Your task to perform on an android device: set the timer Image 0: 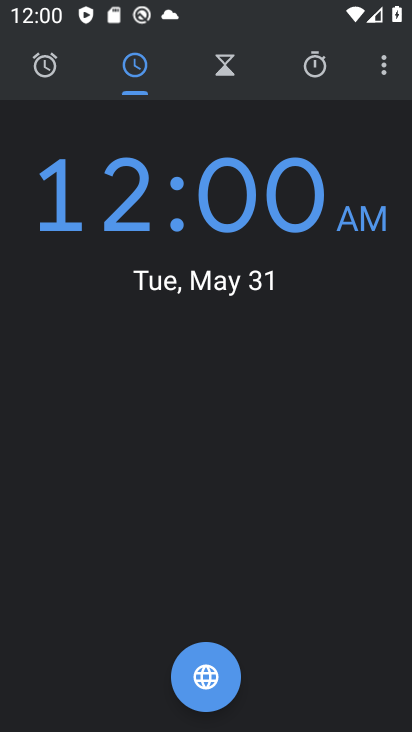
Step 0: press home button
Your task to perform on an android device: set the timer Image 1: 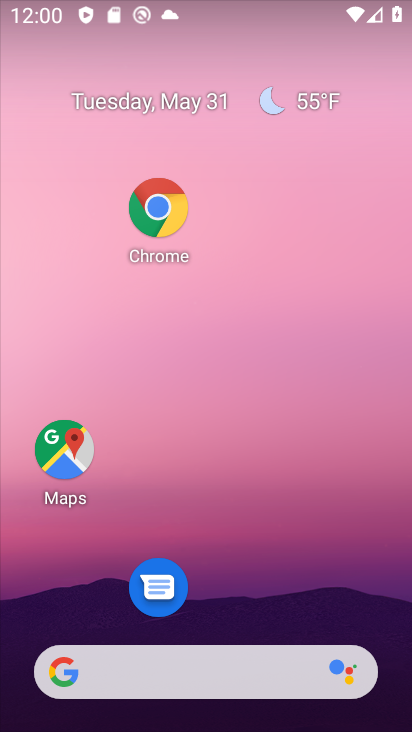
Step 1: drag from (256, 561) to (253, 151)
Your task to perform on an android device: set the timer Image 2: 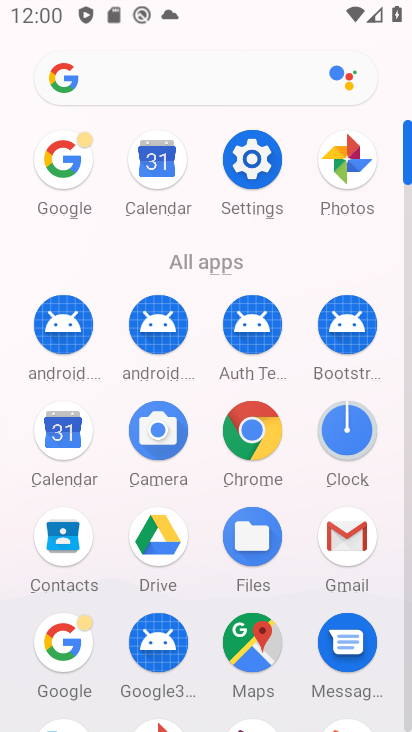
Step 2: click (345, 440)
Your task to perform on an android device: set the timer Image 3: 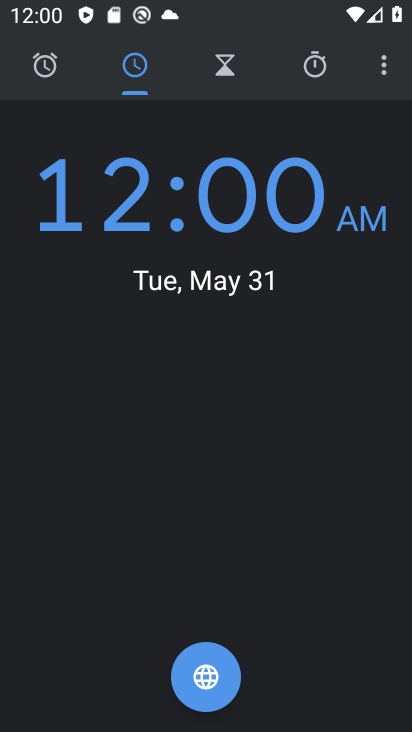
Step 3: click (236, 84)
Your task to perform on an android device: set the timer Image 4: 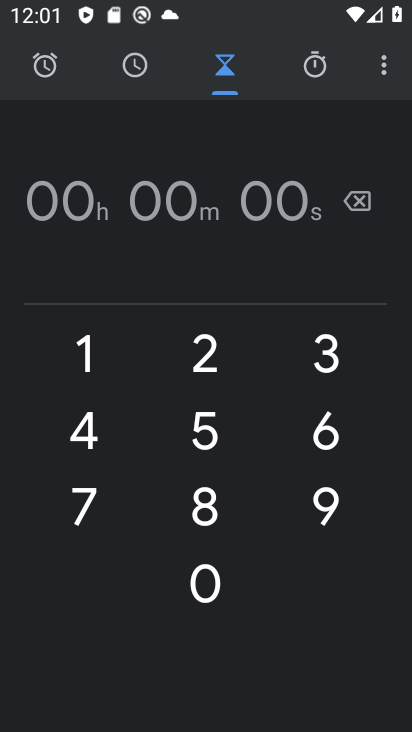
Step 4: click (326, 359)
Your task to perform on an android device: set the timer Image 5: 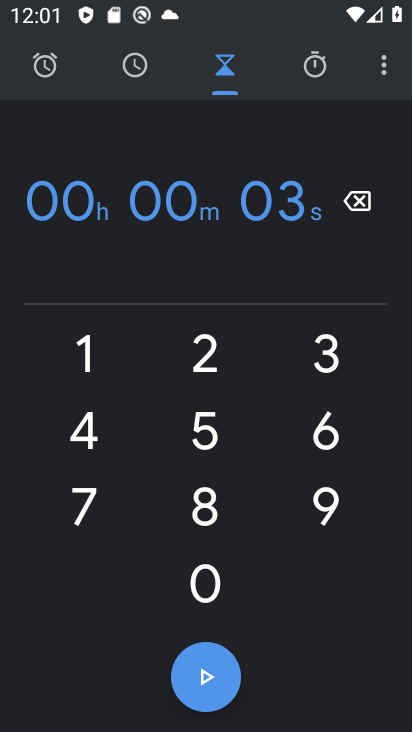
Step 5: click (210, 580)
Your task to perform on an android device: set the timer Image 6: 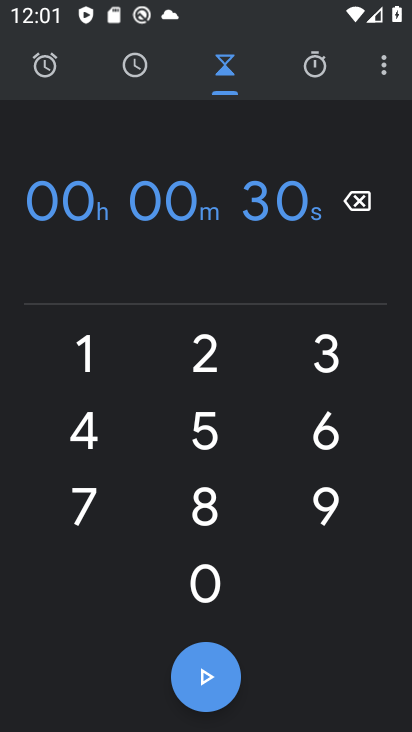
Step 6: click (210, 580)
Your task to perform on an android device: set the timer Image 7: 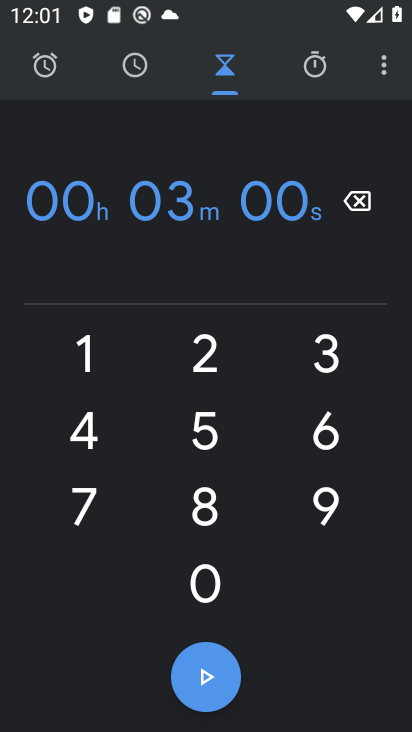
Step 7: click (210, 580)
Your task to perform on an android device: set the timer Image 8: 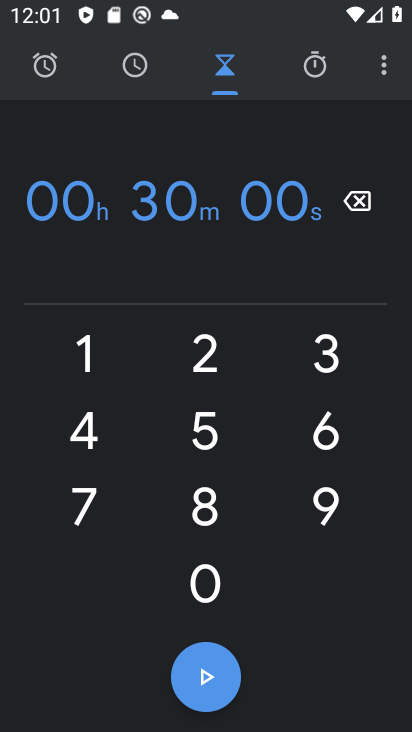
Step 8: click (210, 580)
Your task to perform on an android device: set the timer Image 9: 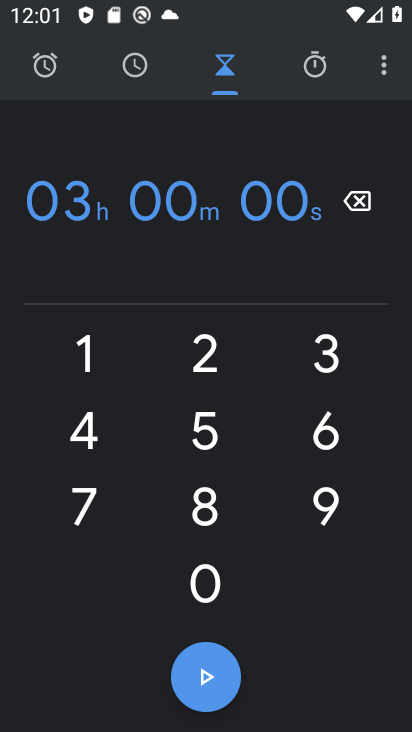
Step 9: click (217, 688)
Your task to perform on an android device: set the timer Image 10: 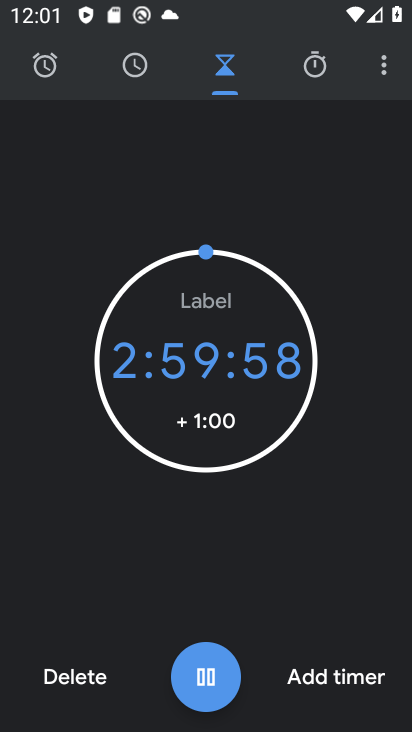
Step 10: click (336, 681)
Your task to perform on an android device: set the timer Image 11: 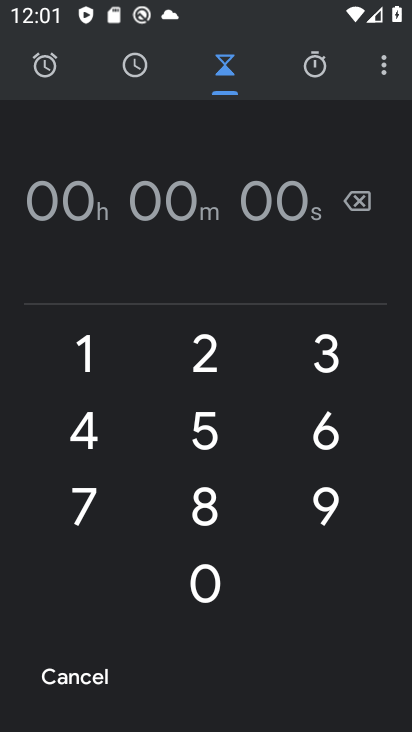
Step 11: task complete